Your task to perform on an android device: see creations saved in the google photos Image 0: 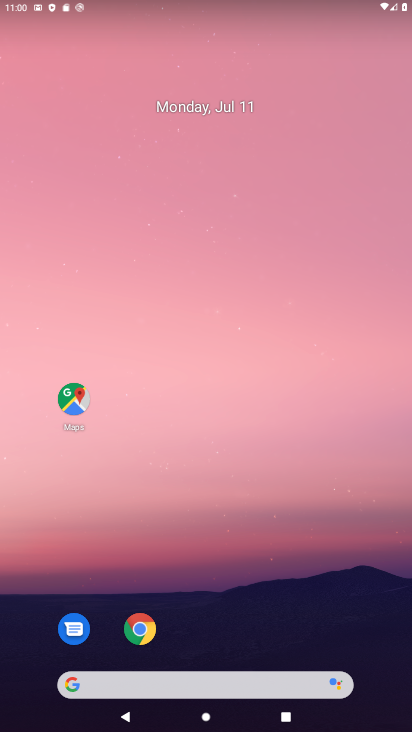
Step 0: drag from (168, 675) to (268, 66)
Your task to perform on an android device: see creations saved in the google photos Image 1: 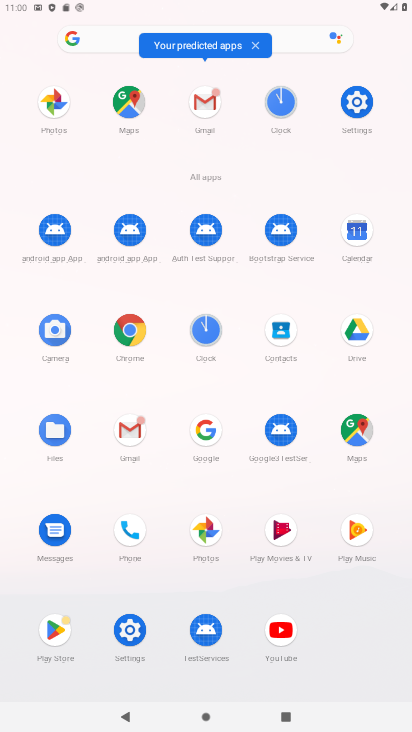
Step 1: click (221, 524)
Your task to perform on an android device: see creations saved in the google photos Image 2: 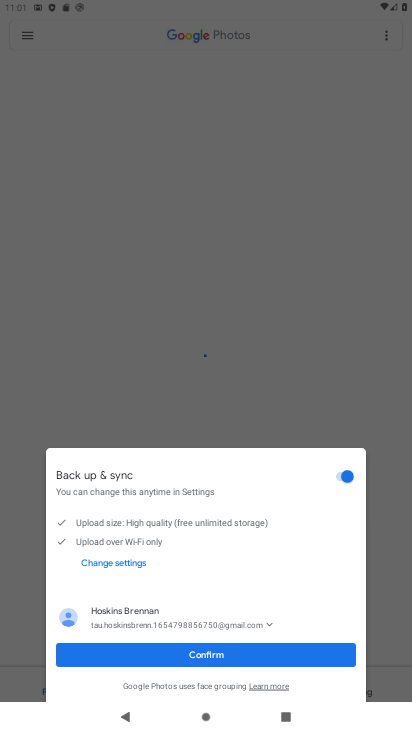
Step 2: drag from (216, 45) to (379, 548)
Your task to perform on an android device: see creations saved in the google photos Image 3: 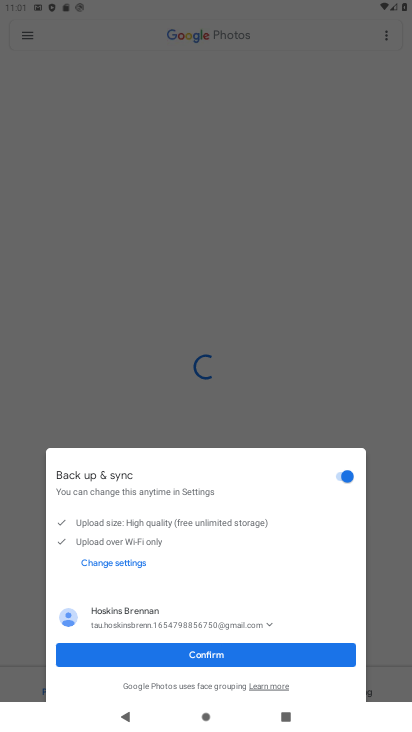
Step 3: click (231, 655)
Your task to perform on an android device: see creations saved in the google photos Image 4: 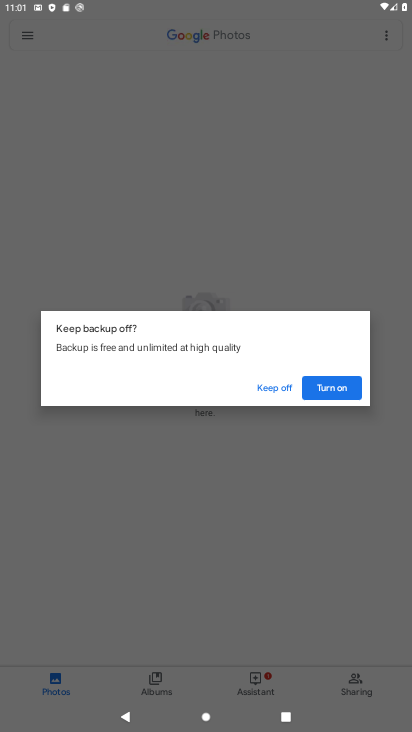
Step 4: click (280, 389)
Your task to perform on an android device: see creations saved in the google photos Image 5: 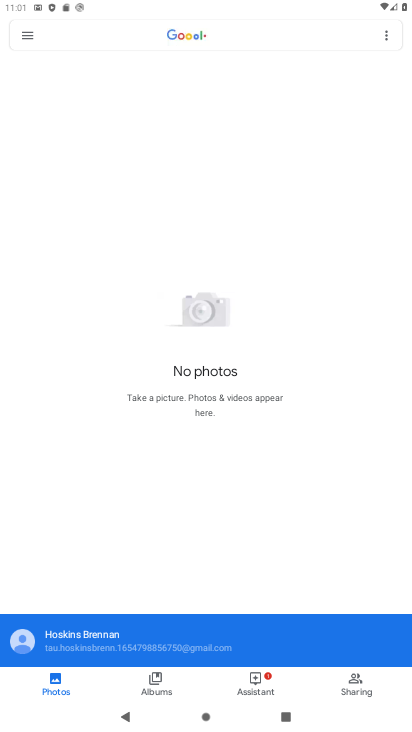
Step 5: click (183, 34)
Your task to perform on an android device: see creations saved in the google photos Image 6: 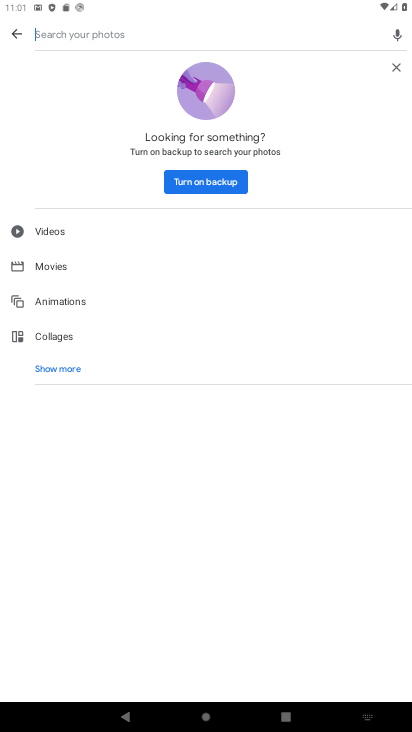
Step 6: click (66, 374)
Your task to perform on an android device: see creations saved in the google photos Image 7: 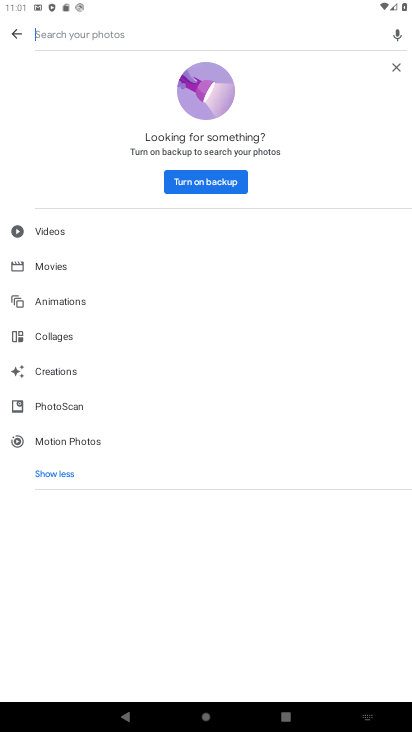
Step 7: click (66, 372)
Your task to perform on an android device: see creations saved in the google photos Image 8: 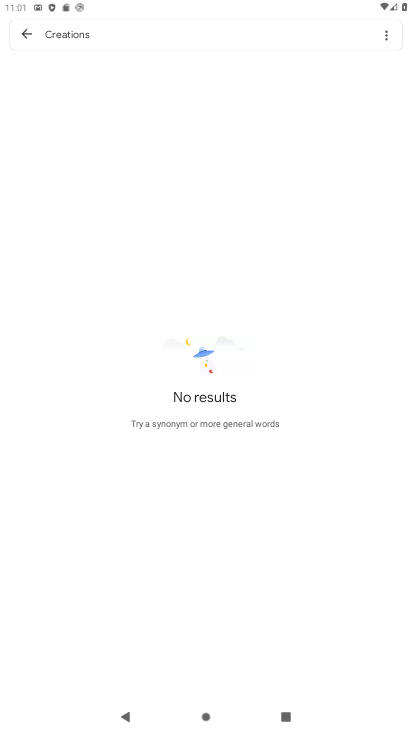
Step 8: task complete